Your task to perform on an android device: When is my next meeting? Image 0: 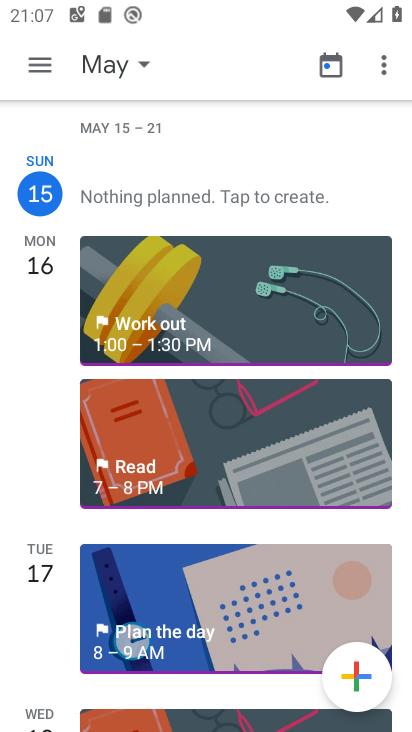
Step 0: press home button
Your task to perform on an android device: When is my next meeting? Image 1: 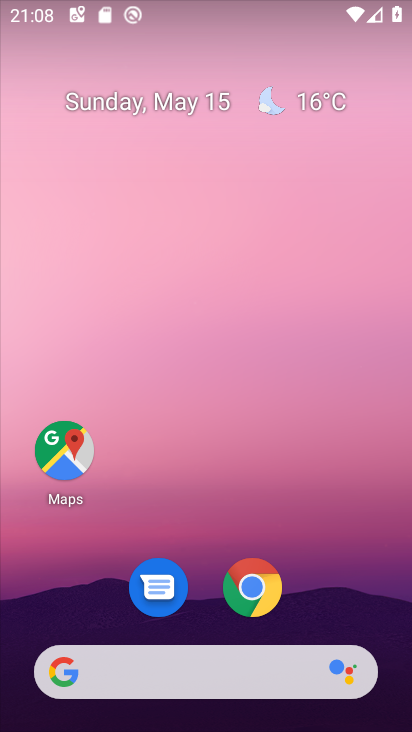
Step 1: drag from (326, 556) to (288, 106)
Your task to perform on an android device: When is my next meeting? Image 2: 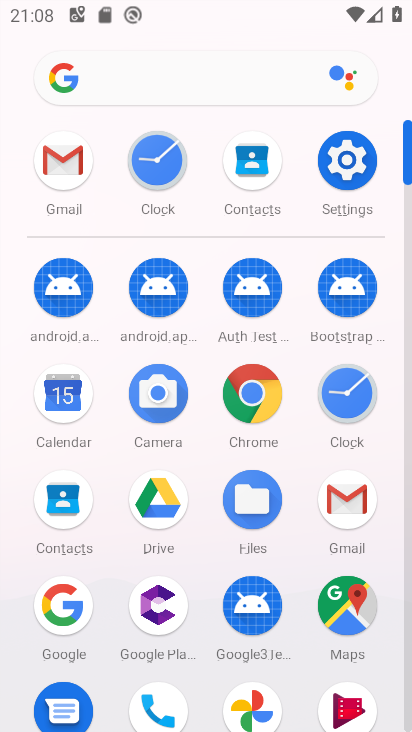
Step 2: click (76, 394)
Your task to perform on an android device: When is my next meeting? Image 3: 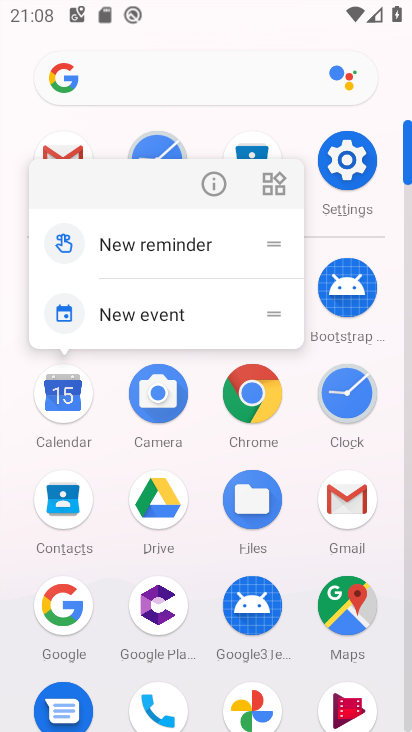
Step 3: click (73, 391)
Your task to perform on an android device: When is my next meeting? Image 4: 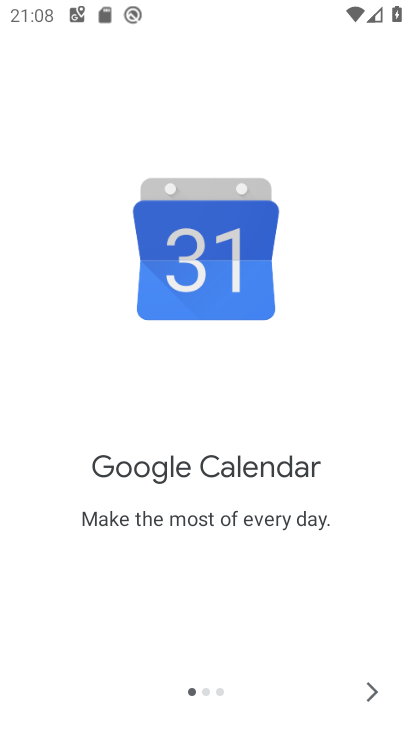
Step 4: click (369, 694)
Your task to perform on an android device: When is my next meeting? Image 5: 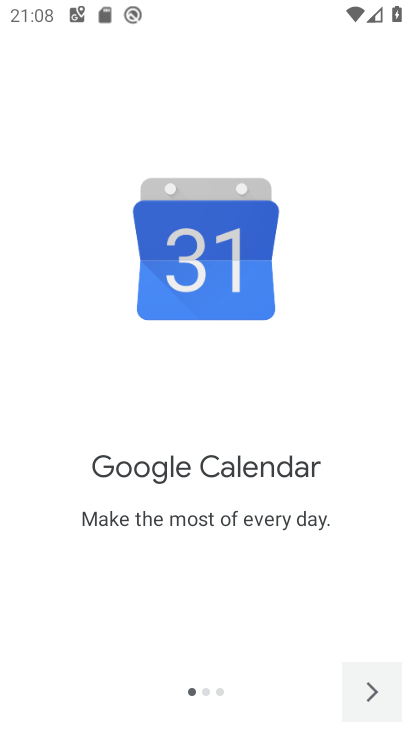
Step 5: click (371, 695)
Your task to perform on an android device: When is my next meeting? Image 6: 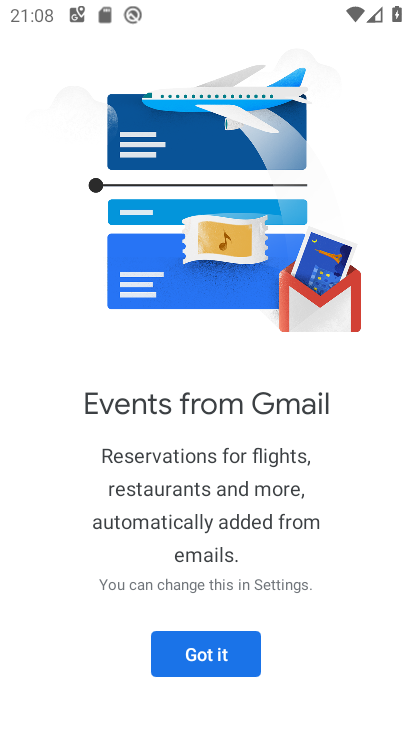
Step 6: click (211, 646)
Your task to perform on an android device: When is my next meeting? Image 7: 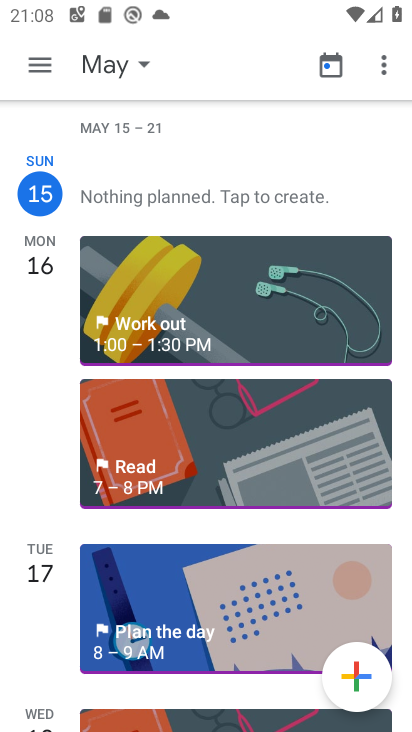
Step 7: task complete